Your task to perform on an android device: delete a single message in the gmail app Image 0: 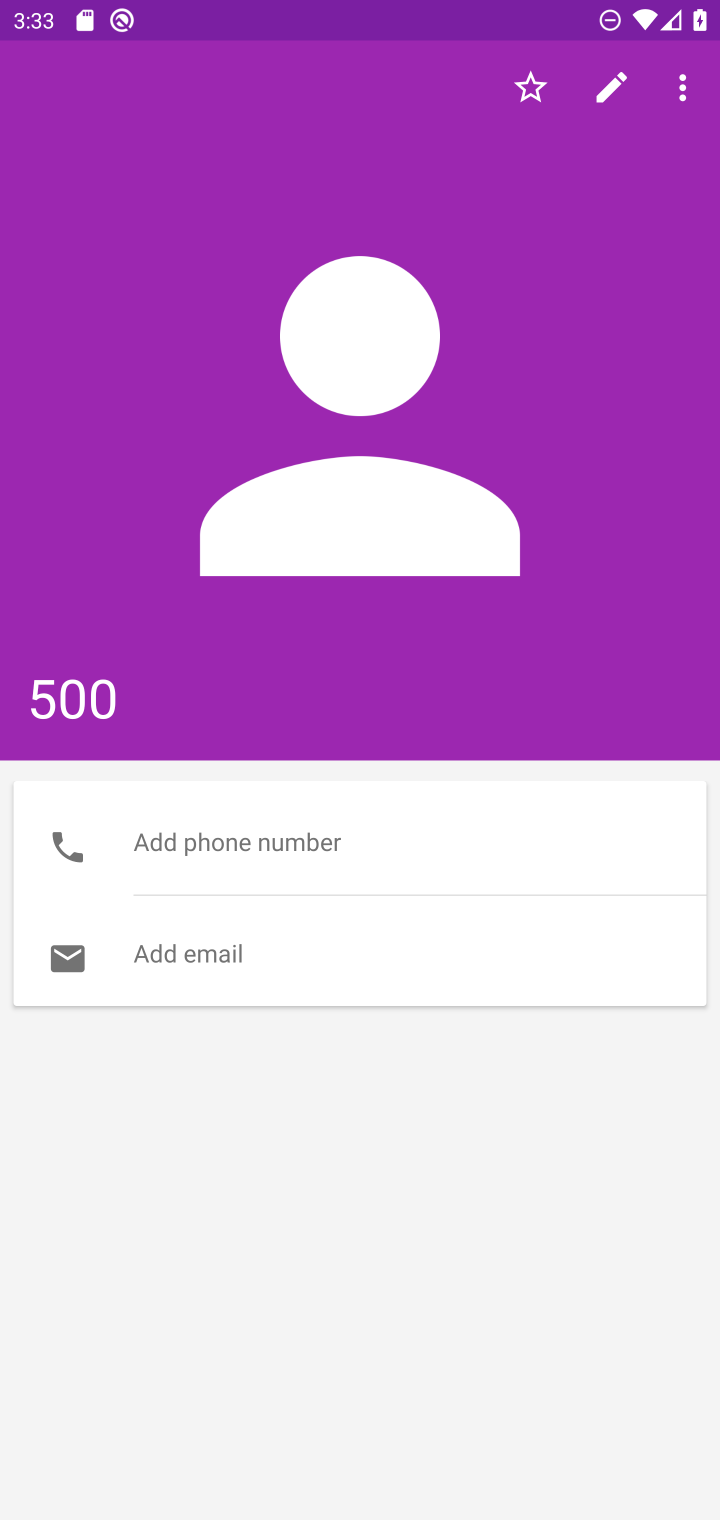
Step 0: press home button
Your task to perform on an android device: delete a single message in the gmail app Image 1: 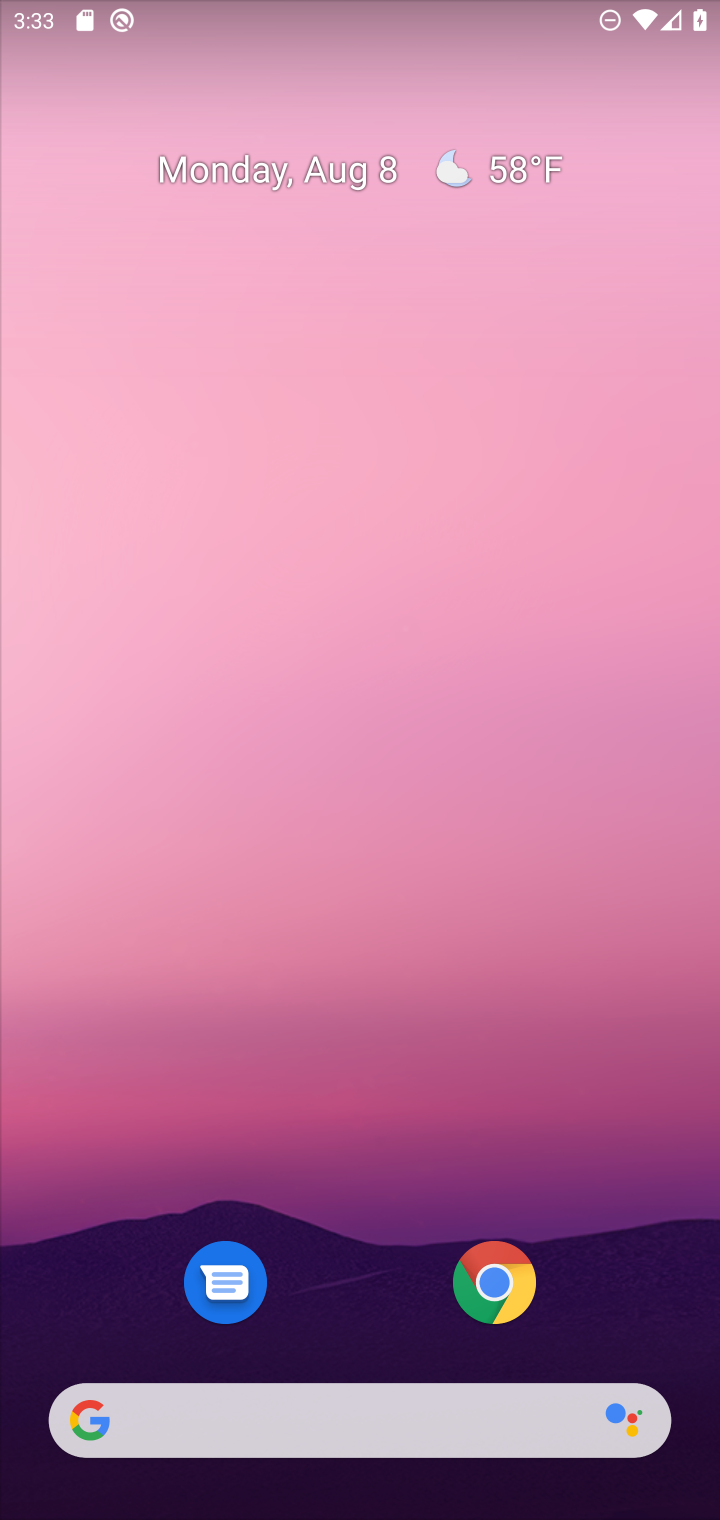
Step 1: drag from (435, 1095) to (715, 278)
Your task to perform on an android device: delete a single message in the gmail app Image 2: 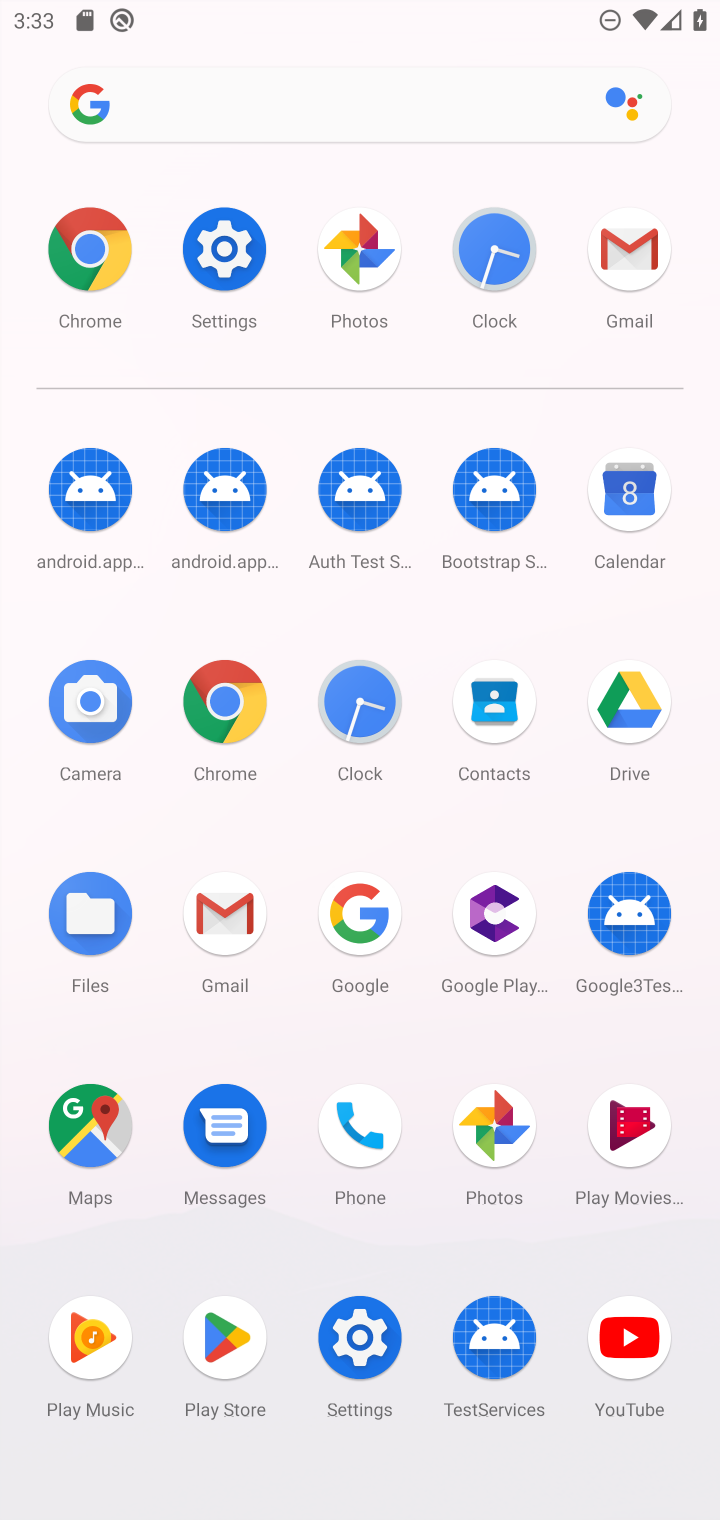
Step 2: click (239, 904)
Your task to perform on an android device: delete a single message in the gmail app Image 3: 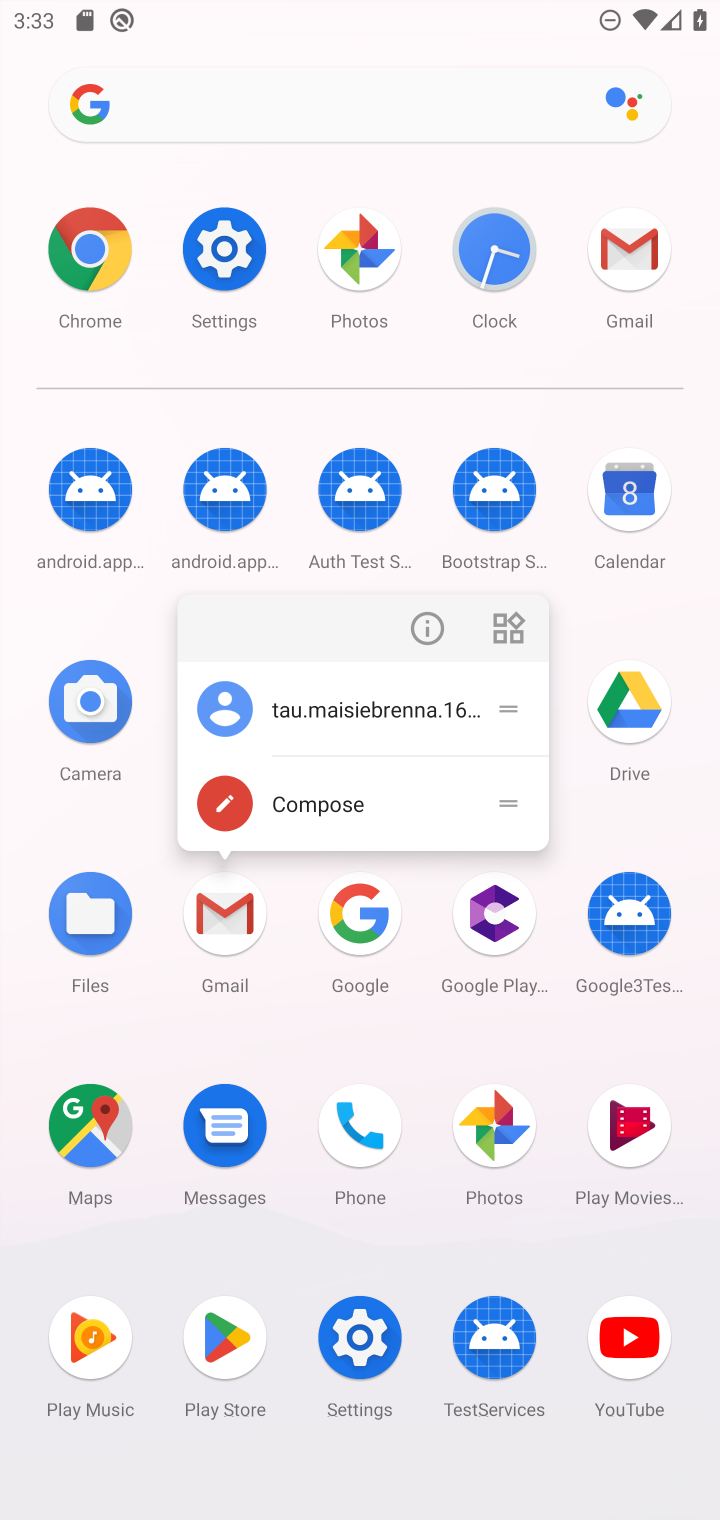
Step 3: click (223, 908)
Your task to perform on an android device: delete a single message in the gmail app Image 4: 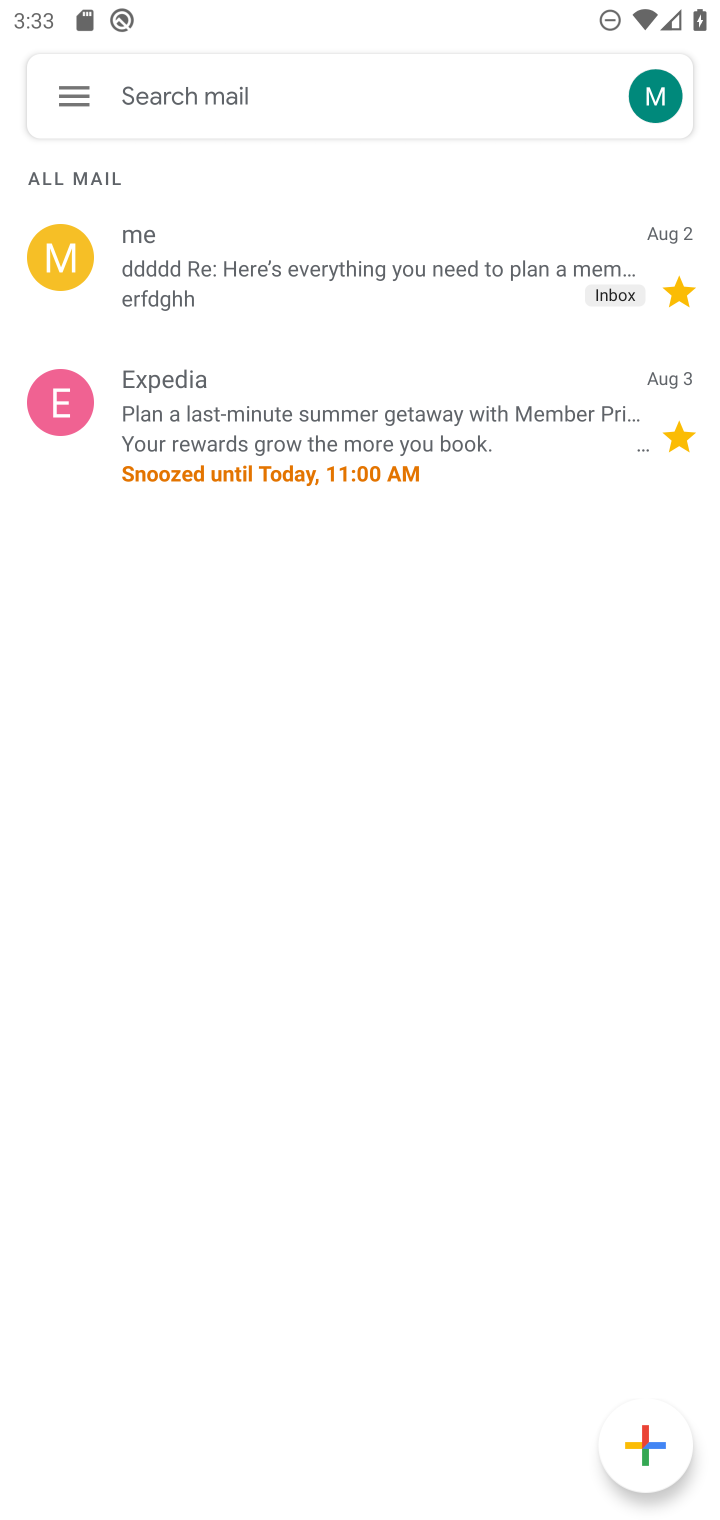
Step 4: click (266, 416)
Your task to perform on an android device: delete a single message in the gmail app Image 5: 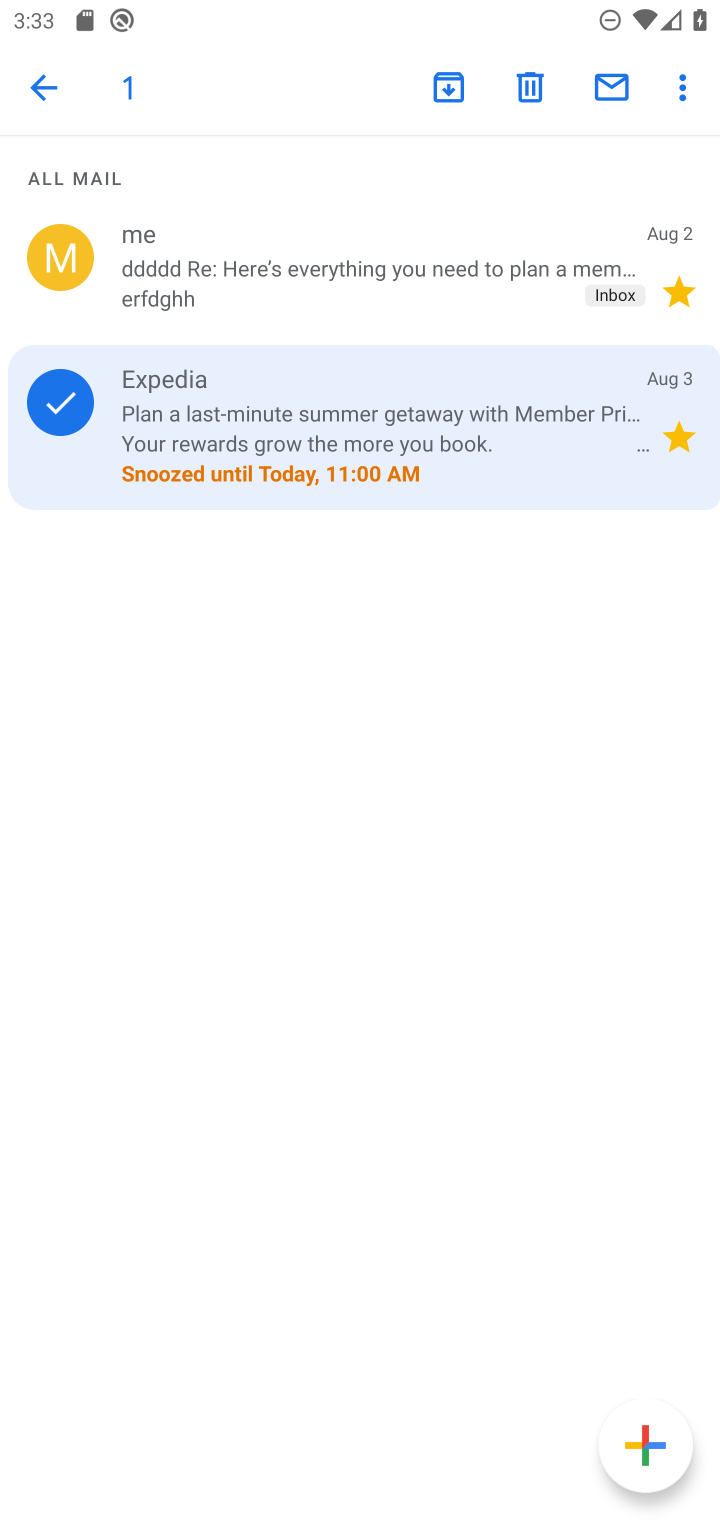
Step 5: click (511, 74)
Your task to perform on an android device: delete a single message in the gmail app Image 6: 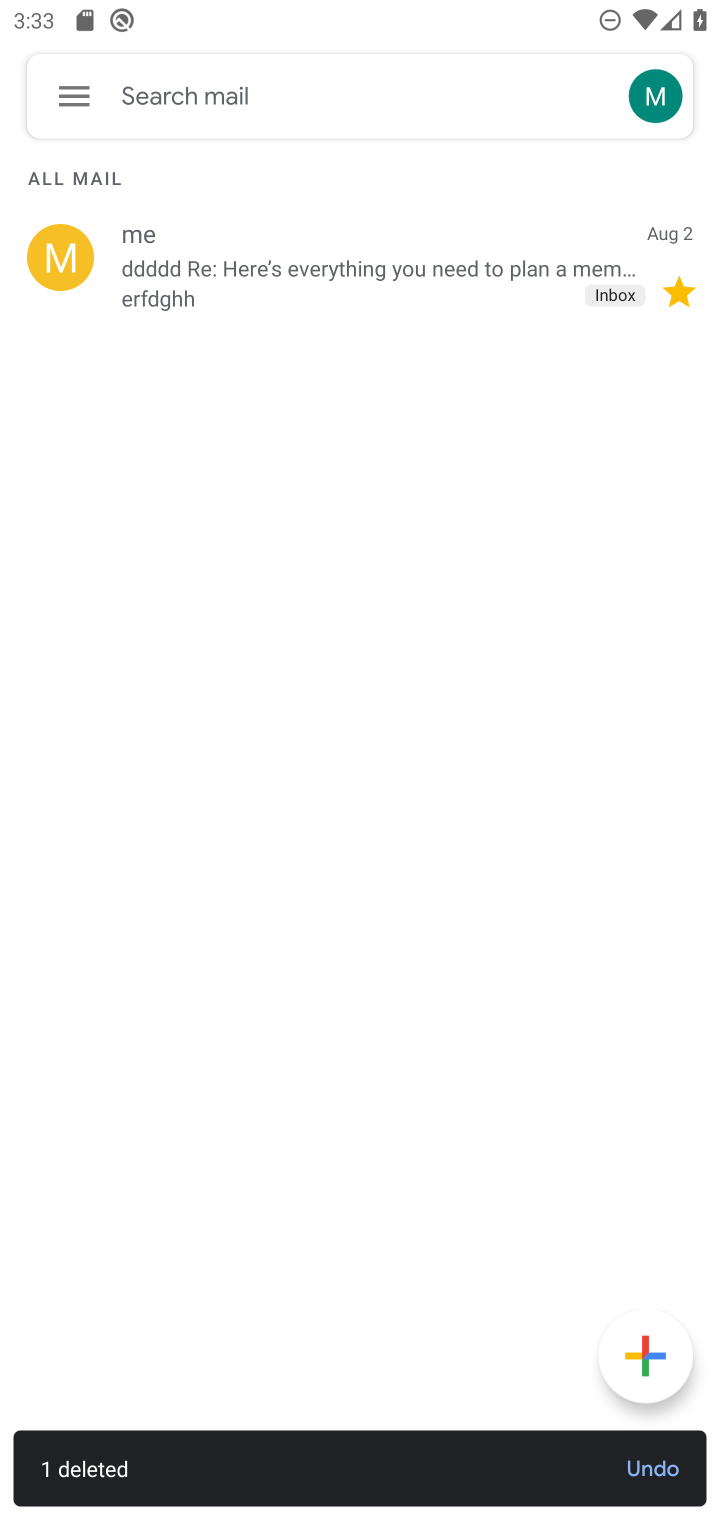
Step 6: task complete